Your task to perform on an android device: Open Google Maps Image 0: 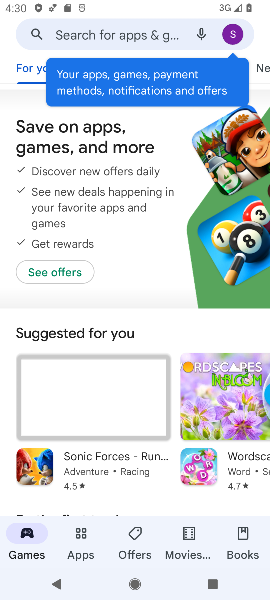
Step 0: press home button
Your task to perform on an android device: Open Google Maps Image 1: 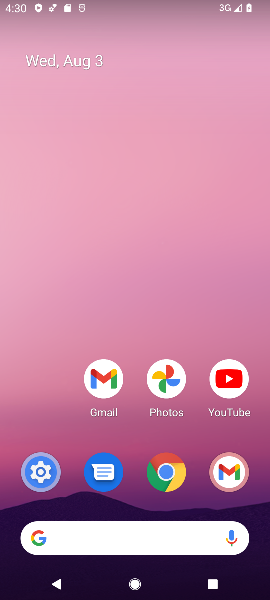
Step 1: drag from (42, 418) to (149, 4)
Your task to perform on an android device: Open Google Maps Image 2: 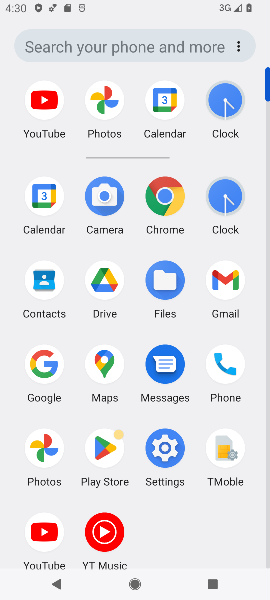
Step 2: click (107, 361)
Your task to perform on an android device: Open Google Maps Image 3: 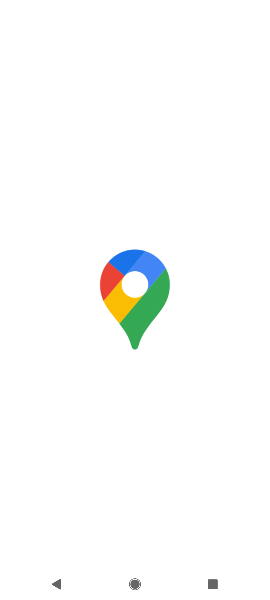
Step 3: task complete